Your task to perform on an android device: What's on my calendar tomorrow? Image 0: 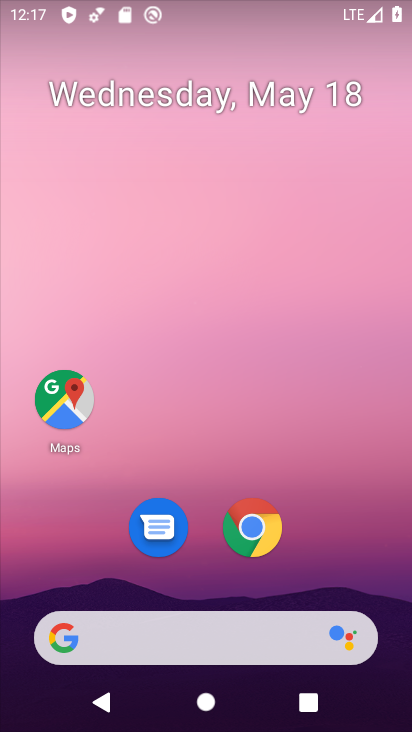
Step 0: click (203, 110)
Your task to perform on an android device: What's on my calendar tomorrow? Image 1: 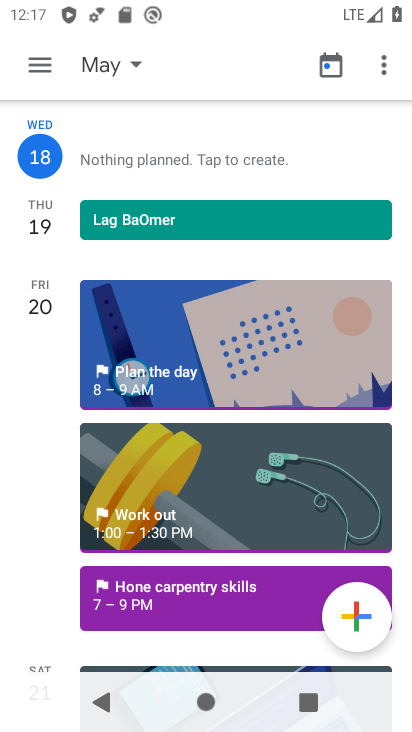
Step 1: task complete